Your task to perform on an android device: Open my contact list Image 0: 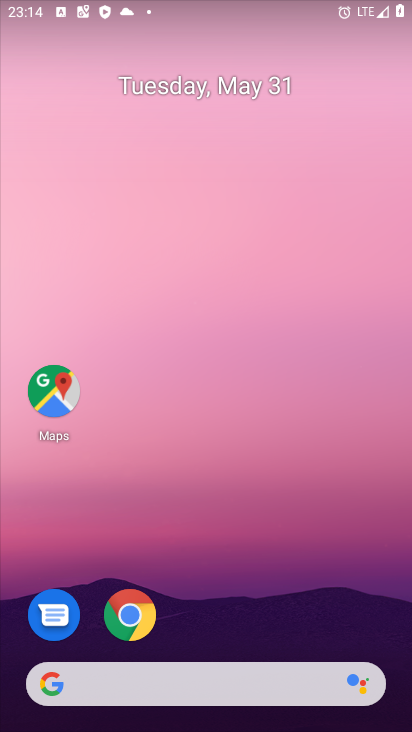
Step 0: drag from (353, 557) to (281, 203)
Your task to perform on an android device: Open my contact list Image 1: 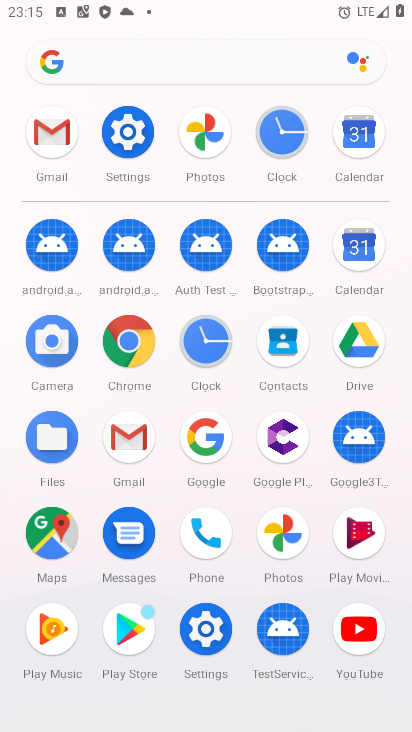
Step 1: click (284, 339)
Your task to perform on an android device: Open my contact list Image 2: 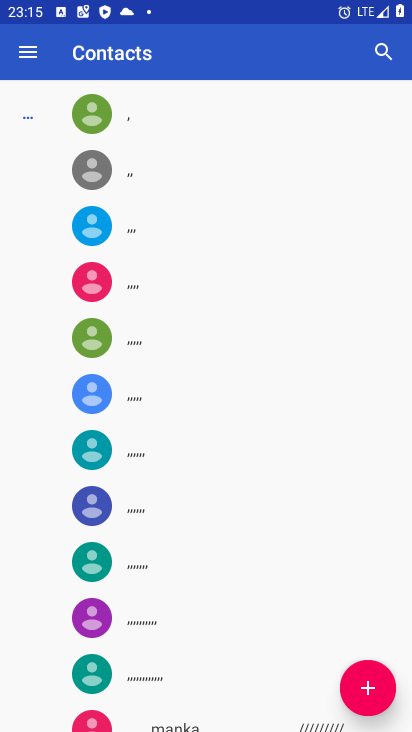
Step 2: task complete